Your task to perform on an android device: Go to calendar. Show me events next week Image 0: 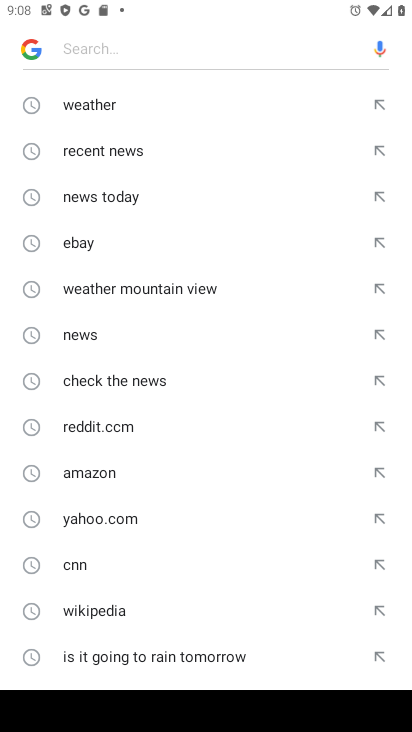
Step 0: press home button
Your task to perform on an android device: Go to calendar. Show me events next week Image 1: 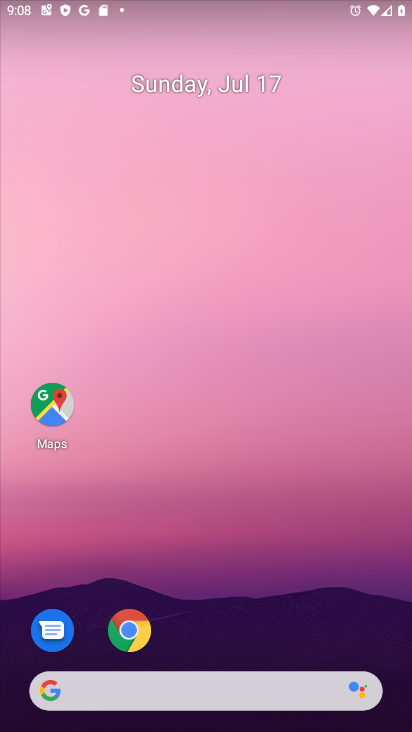
Step 1: drag from (210, 598) to (251, 118)
Your task to perform on an android device: Go to calendar. Show me events next week Image 2: 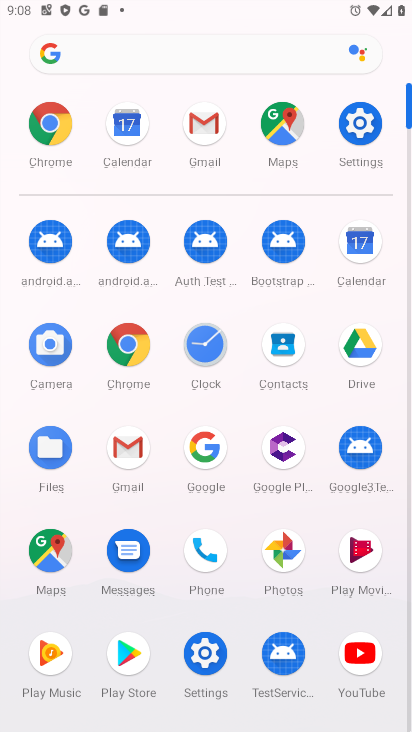
Step 2: click (355, 259)
Your task to perform on an android device: Go to calendar. Show me events next week Image 3: 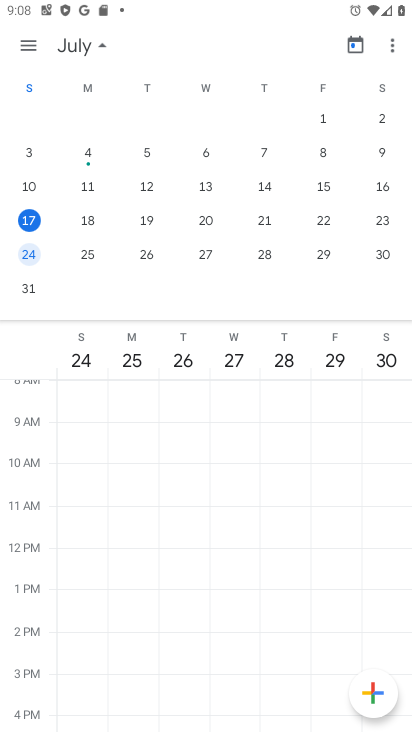
Step 3: task complete